Your task to perform on an android device: turn on showing notifications on the lock screen Image 0: 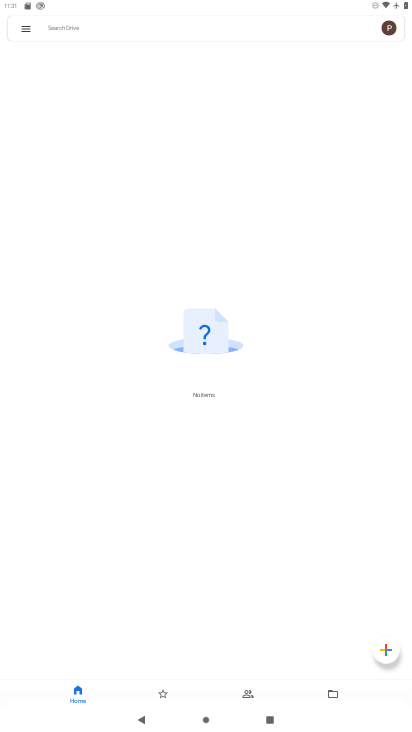
Step 0: press home button
Your task to perform on an android device: turn on showing notifications on the lock screen Image 1: 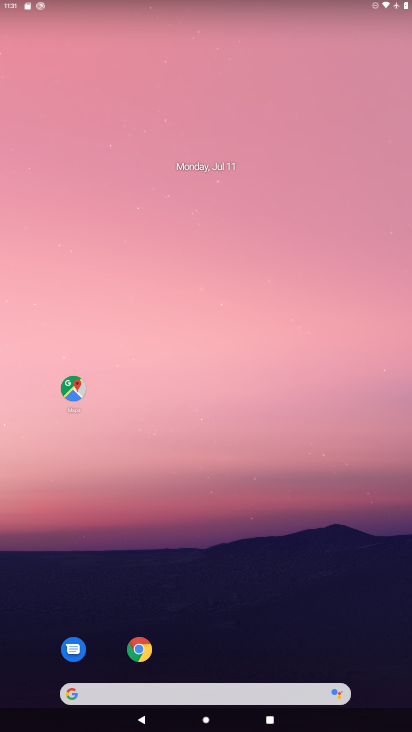
Step 1: drag from (245, 594) to (199, 3)
Your task to perform on an android device: turn on showing notifications on the lock screen Image 2: 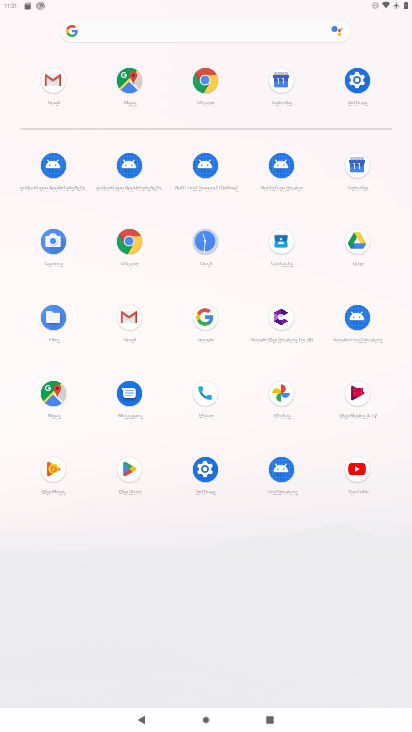
Step 2: click (362, 74)
Your task to perform on an android device: turn on showing notifications on the lock screen Image 3: 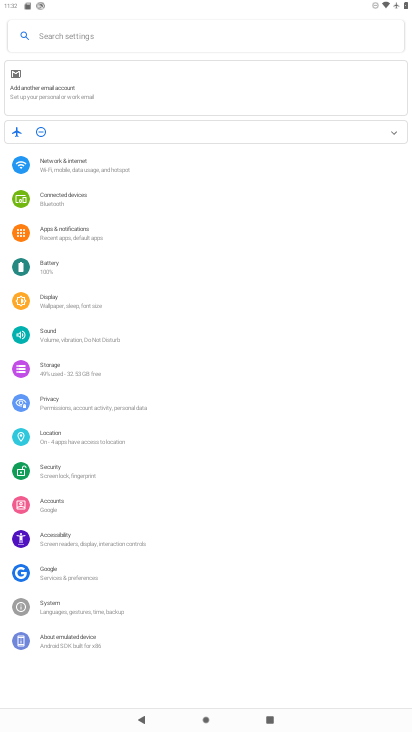
Step 3: click (78, 231)
Your task to perform on an android device: turn on showing notifications on the lock screen Image 4: 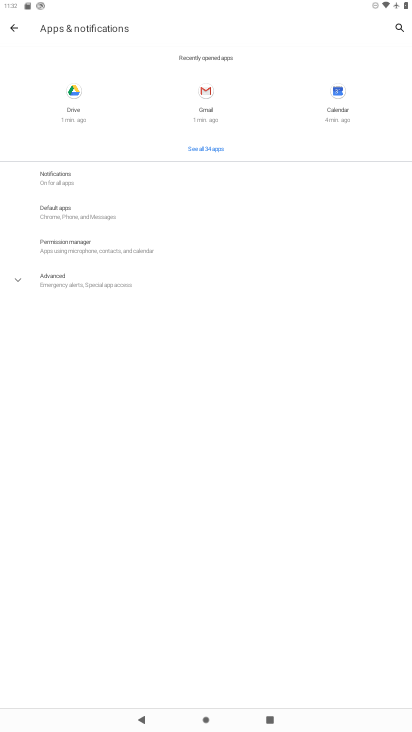
Step 4: click (75, 173)
Your task to perform on an android device: turn on showing notifications on the lock screen Image 5: 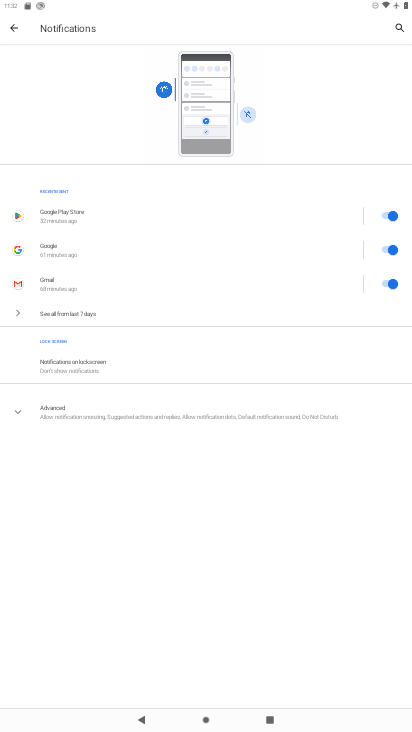
Step 5: click (113, 361)
Your task to perform on an android device: turn on showing notifications on the lock screen Image 6: 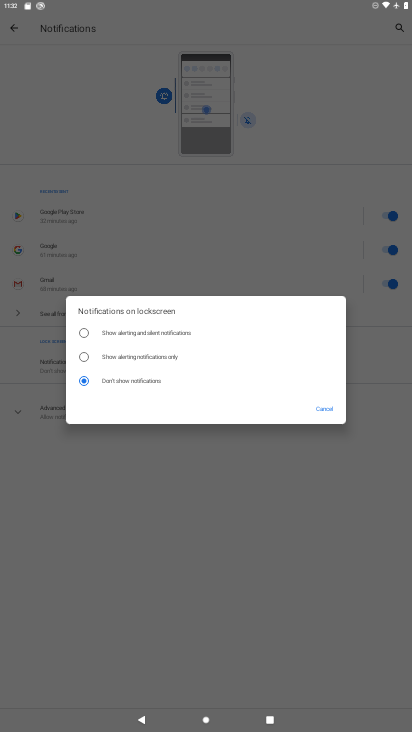
Step 6: click (127, 361)
Your task to perform on an android device: turn on showing notifications on the lock screen Image 7: 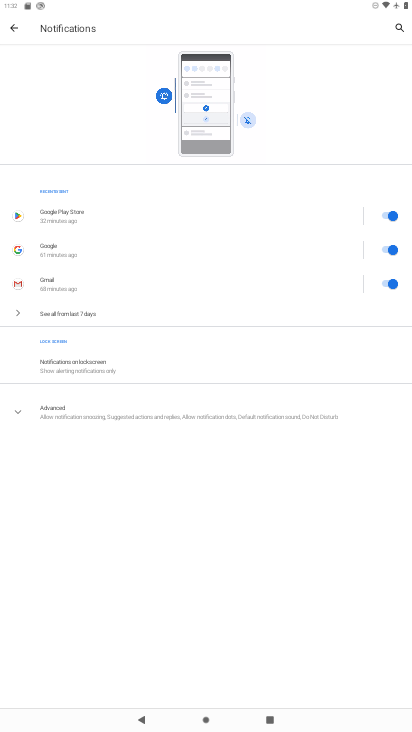
Step 7: task complete